Your task to perform on an android device: toggle javascript in the chrome app Image 0: 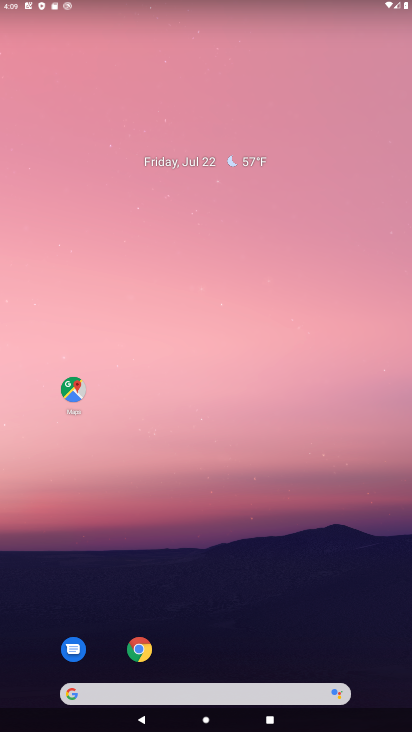
Step 0: click (261, 189)
Your task to perform on an android device: toggle javascript in the chrome app Image 1: 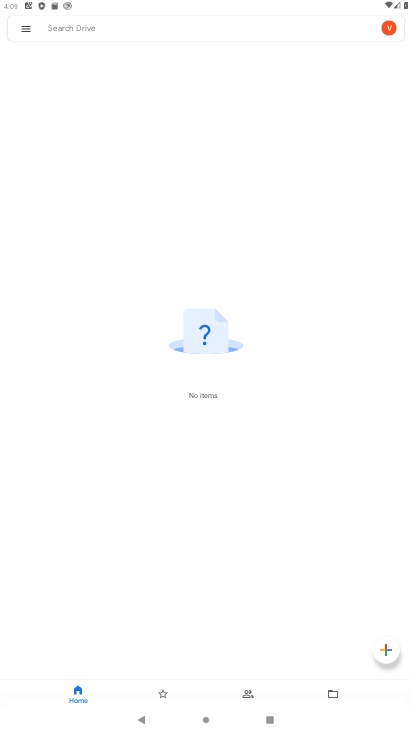
Step 1: press home button
Your task to perform on an android device: toggle javascript in the chrome app Image 2: 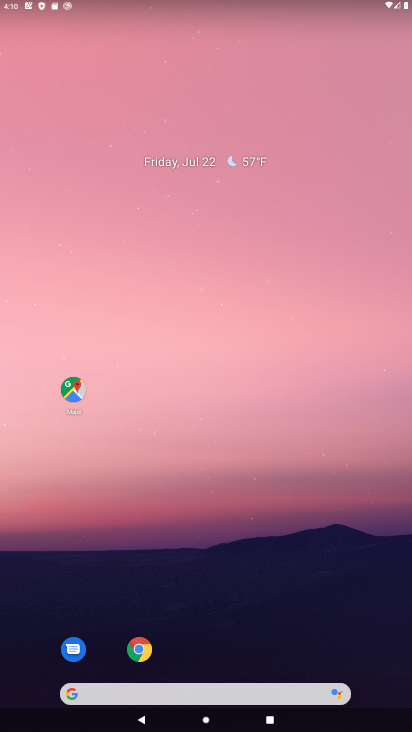
Step 2: click (142, 654)
Your task to perform on an android device: toggle javascript in the chrome app Image 3: 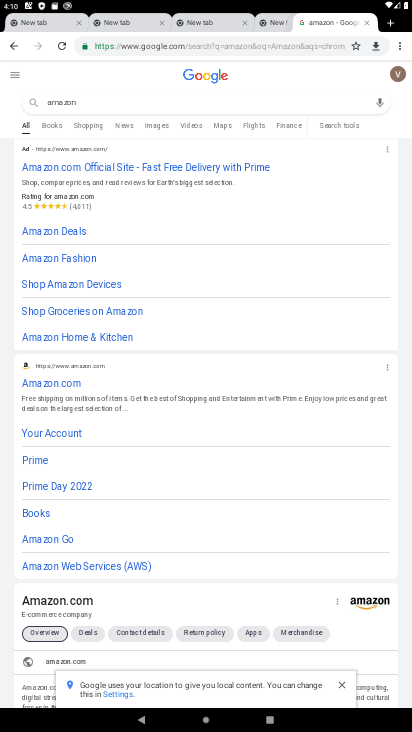
Step 3: click (394, 47)
Your task to perform on an android device: toggle javascript in the chrome app Image 4: 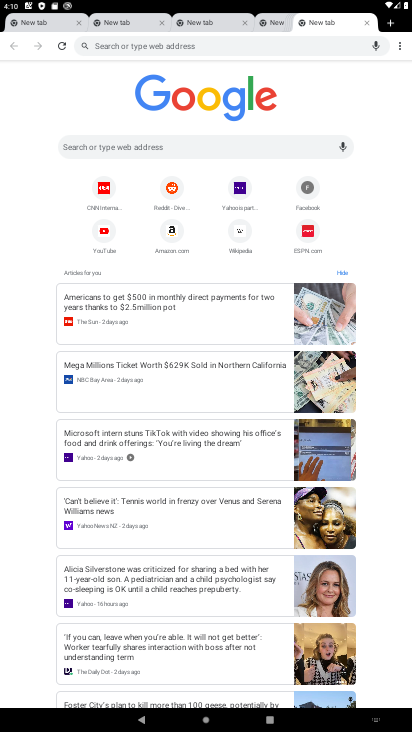
Step 4: click (399, 48)
Your task to perform on an android device: toggle javascript in the chrome app Image 5: 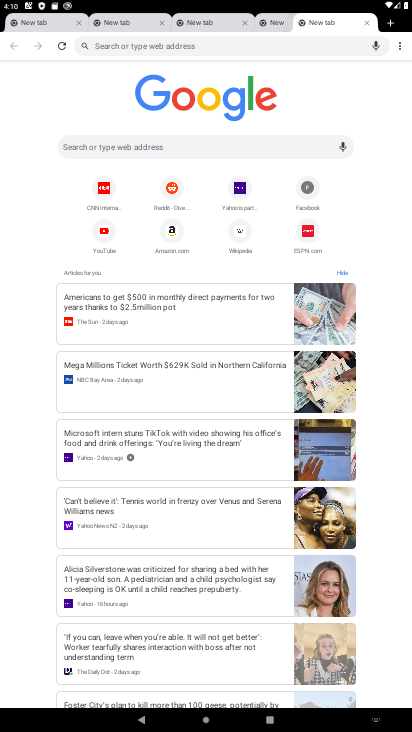
Step 5: click (399, 48)
Your task to perform on an android device: toggle javascript in the chrome app Image 6: 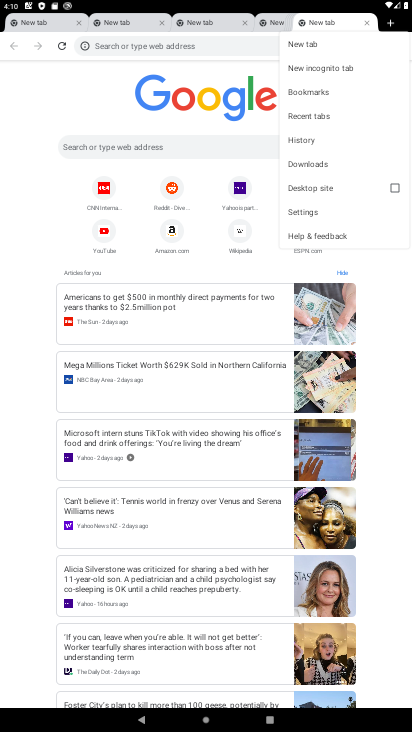
Step 6: click (310, 207)
Your task to perform on an android device: toggle javascript in the chrome app Image 7: 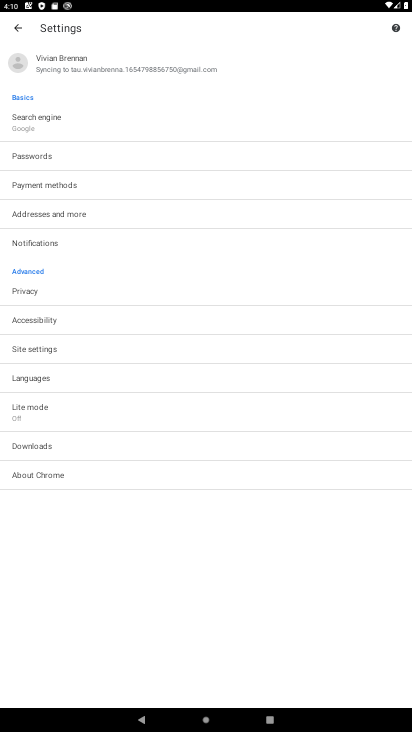
Step 7: click (31, 350)
Your task to perform on an android device: toggle javascript in the chrome app Image 8: 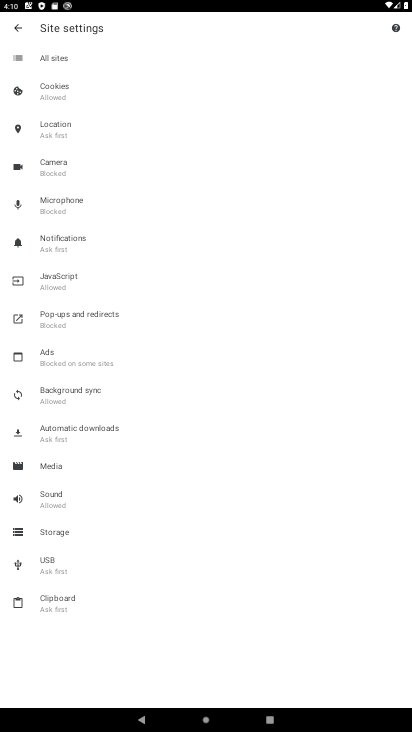
Step 8: click (51, 277)
Your task to perform on an android device: toggle javascript in the chrome app Image 9: 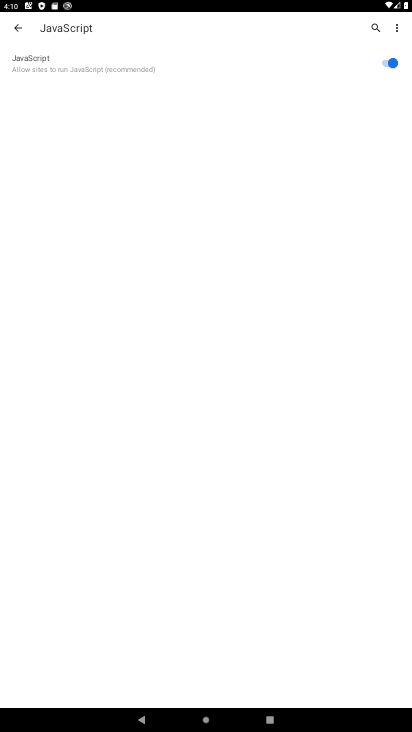
Step 9: task complete